Your task to perform on an android device: toggle wifi Image 0: 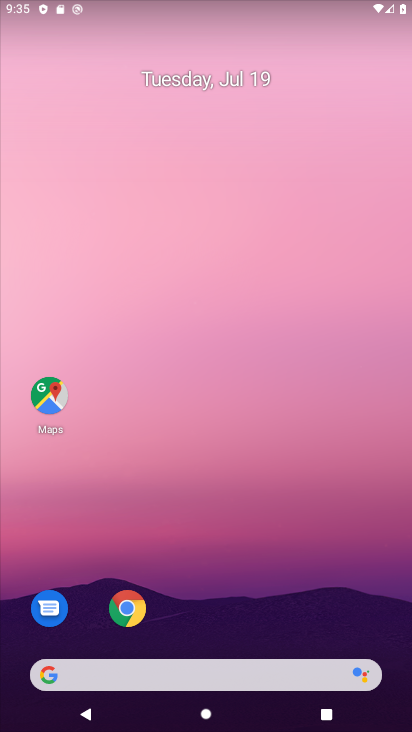
Step 0: drag from (263, 610) to (305, 137)
Your task to perform on an android device: toggle wifi Image 1: 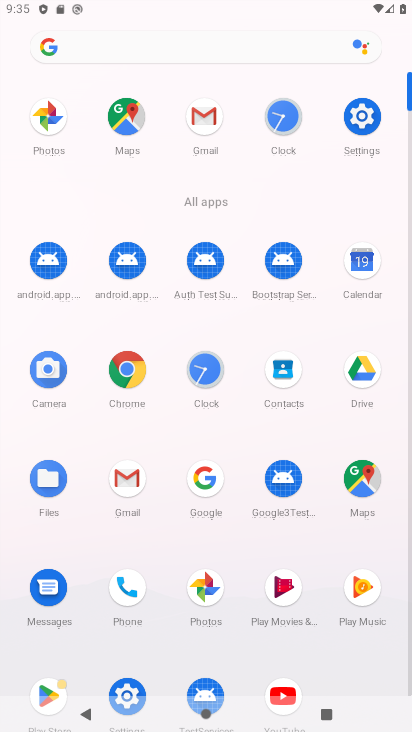
Step 1: click (373, 121)
Your task to perform on an android device: toggle wifi Image 2: 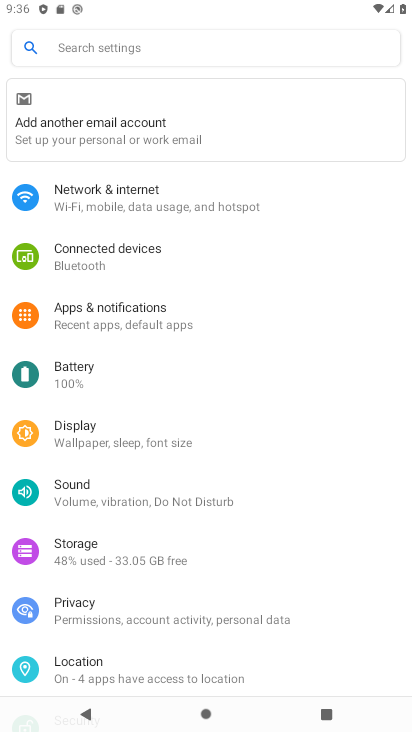
Step 2: click (119, 189)
Your task to perform on an android device: toggle wifi Image 3: 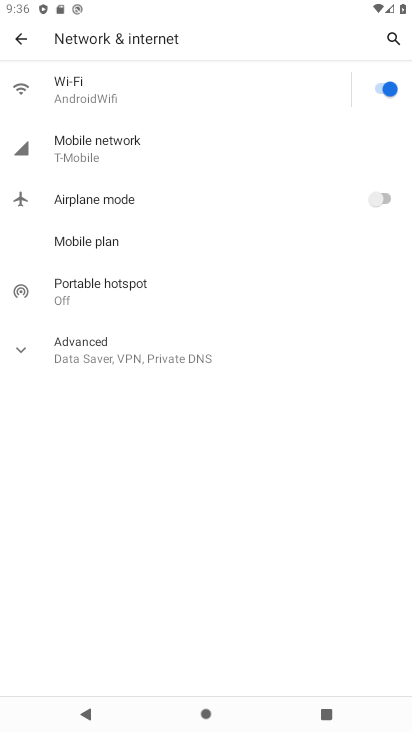
Step 3: click (379, 92)
Your task to perform on an android device: toggle wifi Image 4: 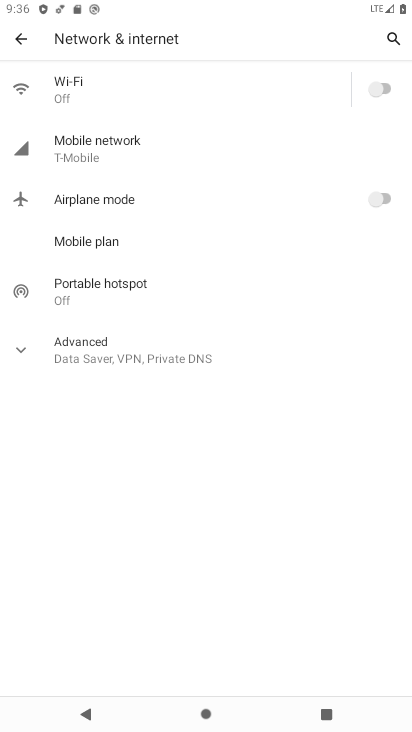
Step 4: task complete